Your task to perform on an android device: What's on my calendar tomorrow? Image 0: 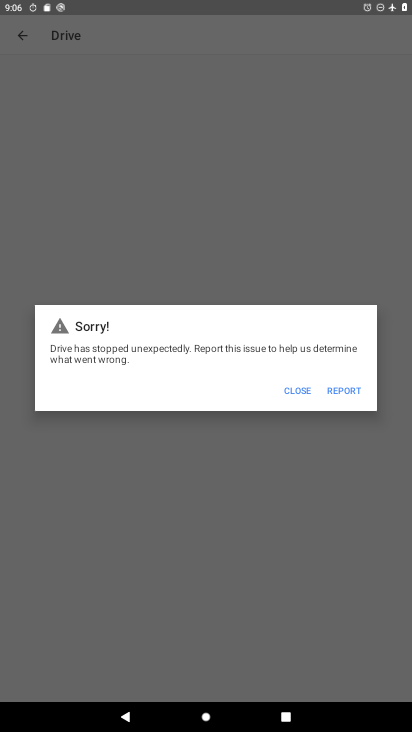
Step 0: press home button
Your task to perform on an android device: What's on my calendar tomorrow? Image 1: 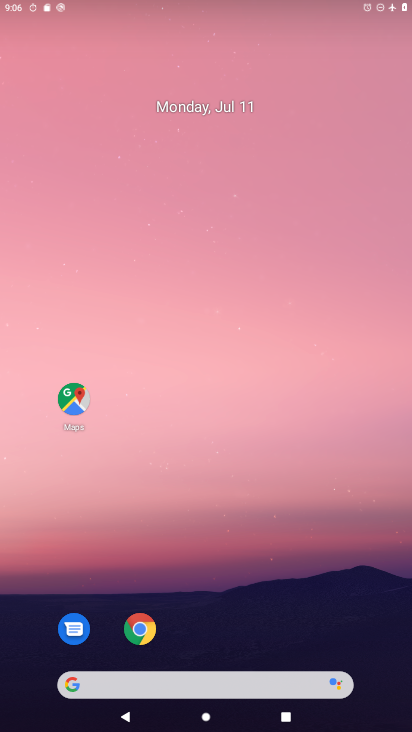
Step 1: drag from (229, 613) to (273, 80)
Your task to perform on an android device: What's on my calendar tomorrow? Image 2: 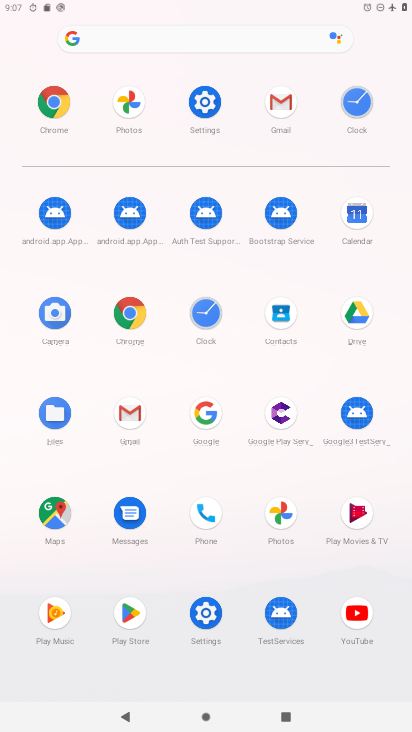
Step 2: click (360, 207)
Your task to perform on an android device: What's on my calendar tomorrow? Image 3: 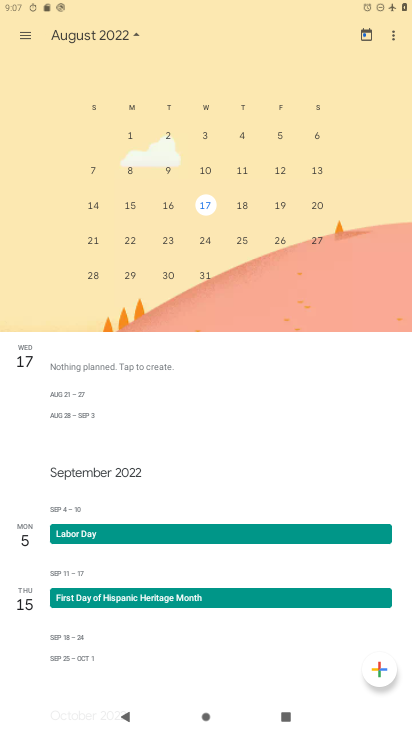
Step 3: drag from (41, 282) to (404, 232)
Your task to perform on an android device: What's on my calendar tomorrow? Image 4: 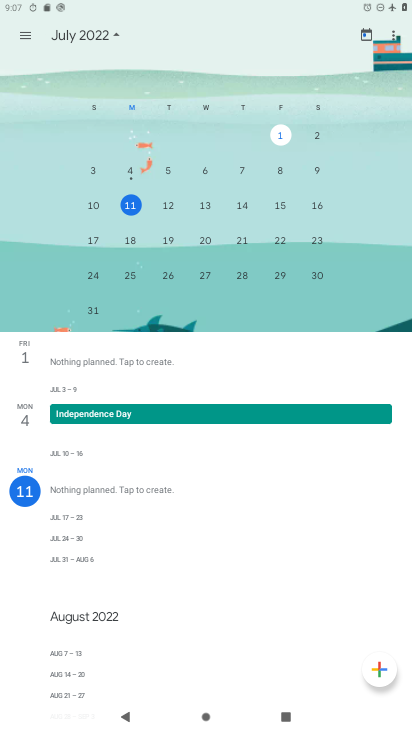
Step 4: click (131, 207)
Your task to perform on an android device: What's on my calendar tomorrow? Image 5: 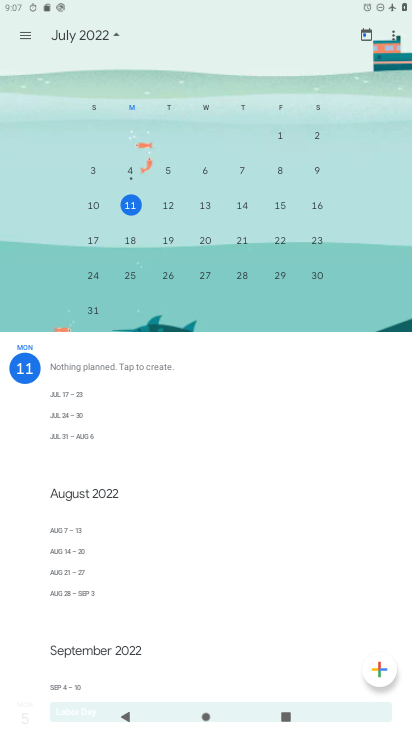
Step 5: click (166, 210)
Your task to perform on an android device: What's on my calendar tomorrow? Image 6: 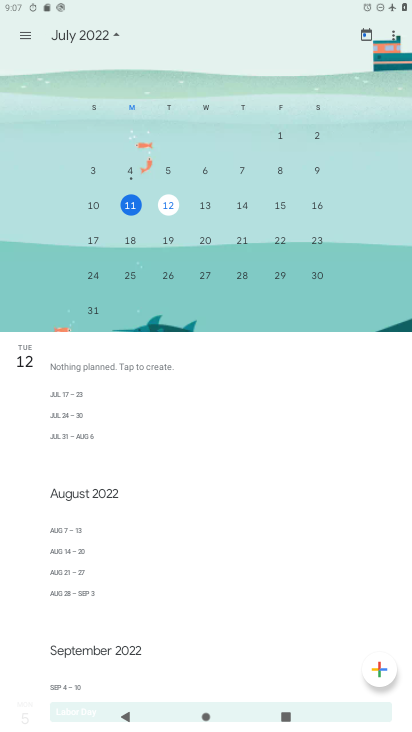
Step 6: task complete